Your task to perform on an android device: check android version Image 0: 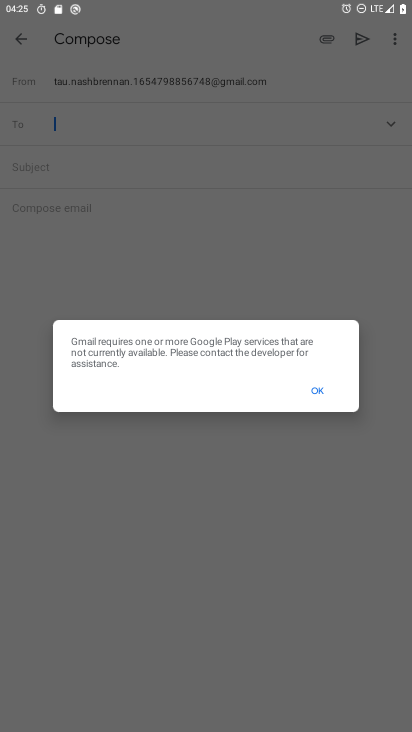
Step 0: press home button
Your task to perform on an android device: check android version Image 1: 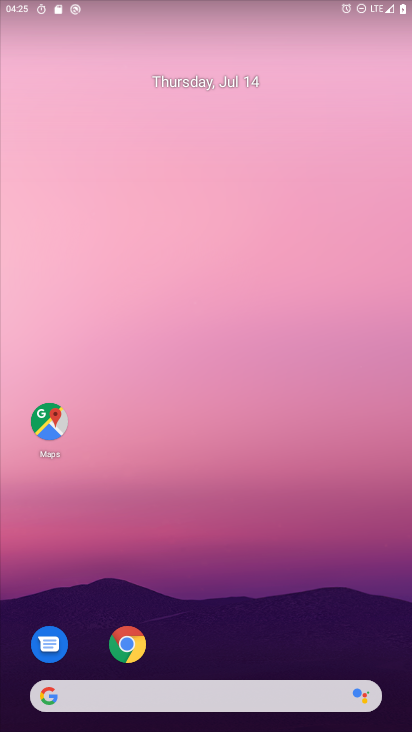
Step 1: drag from (315, 617) to (265, 89)
Your task to perform on an android device: check android version Image 2: 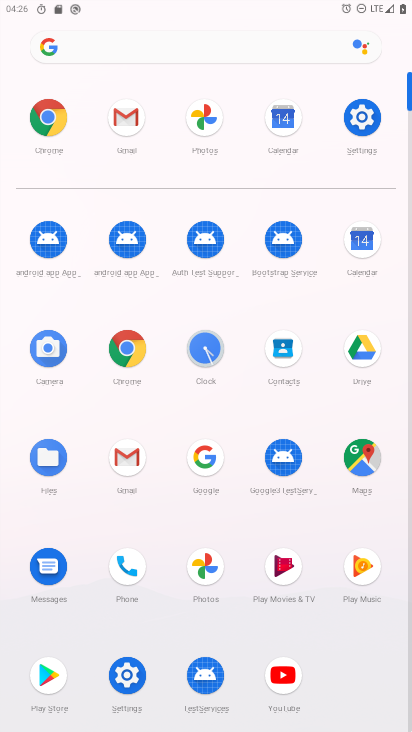
Step 2: click (364, 118)
Your task to perform on an android device: check android version Image 3: 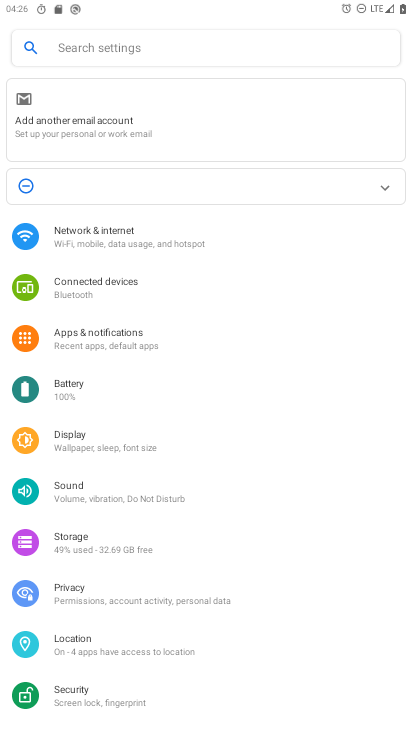
Step 3: drag from (240, 622) to (297, 54)
Your task to perform on an android device: check android version Image 4: 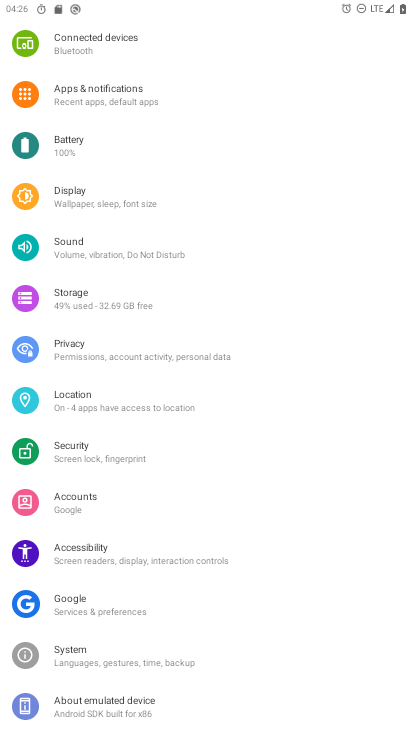
Step 4: click (128, 706)
Your task to perform on an android device: check android version Image 5: 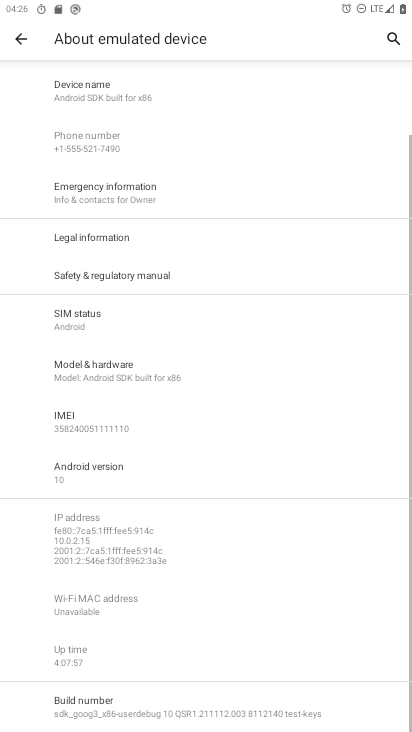
Step 5: click (101, 480)
Your task to perform on an android device: check android version Image 6: 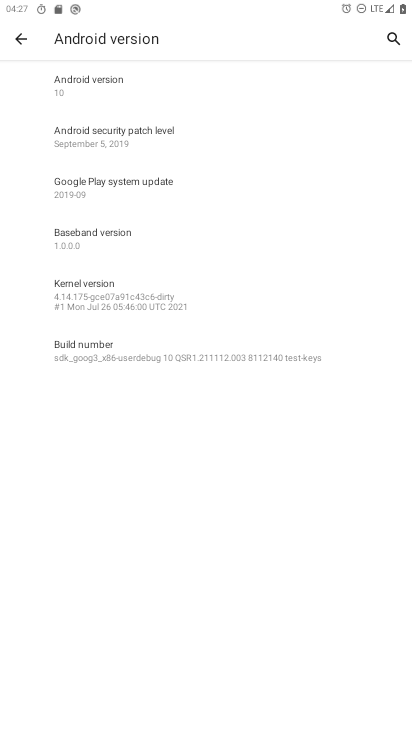
Step 6: task complete